Your task to perform on an android device: check the backup settings in the google photos Image 0: 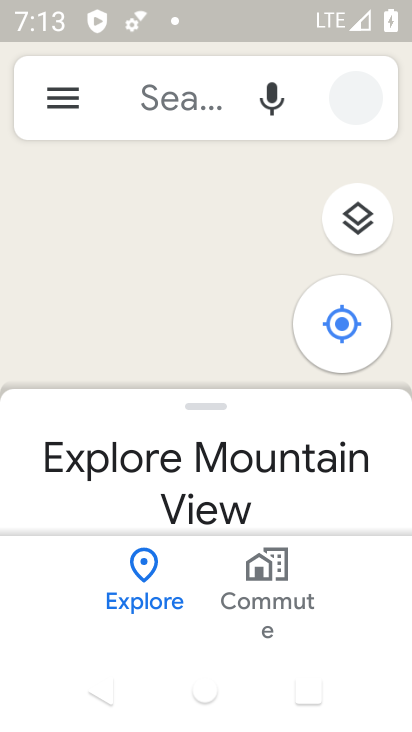
Step 0: click (204, 258)
Your task to perform on an android device: check the backup settings in the google photos Image 1: 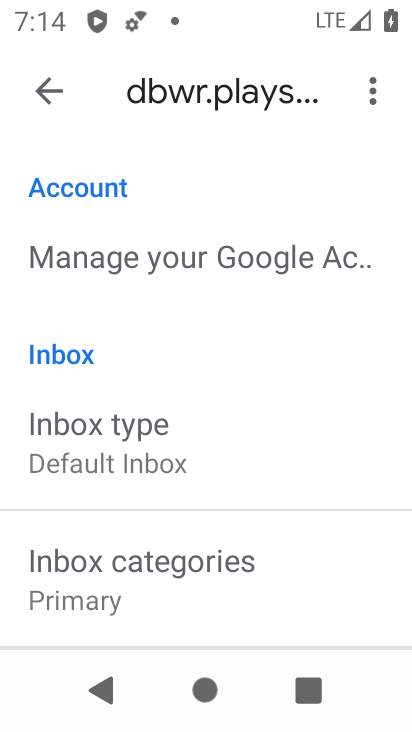
Step 1: press home button
Your task to perform on an android device: check the backup settings in the google photos Image 2: 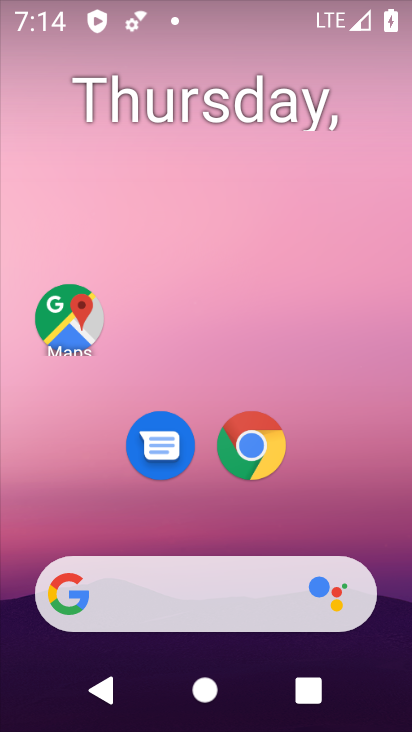
Step 2: drag from (292, 270) to (294, 176)
Your task to perform on an android device: check the backup settings in the google photos Image 3: 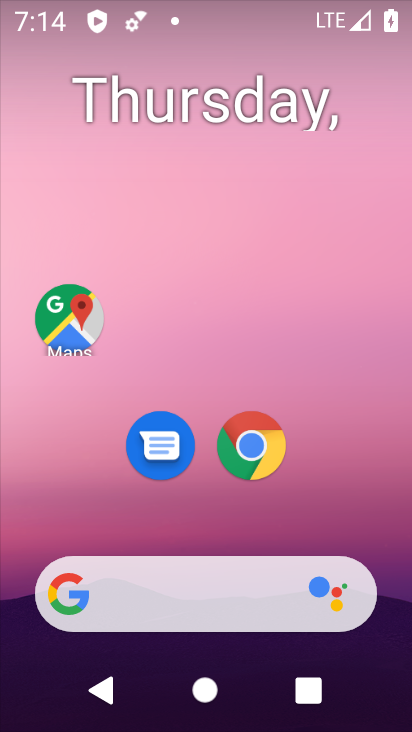
Step 3: drag from (275, 508) to (324, 119)
Your task to perform on an android device: check the backup settings in the google photos Image 4: 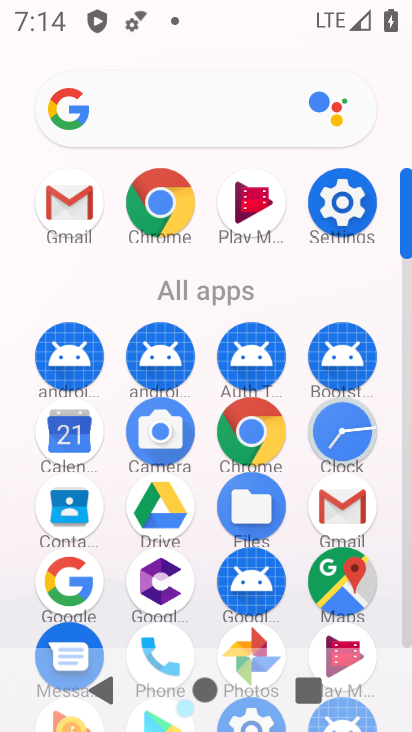
Step 4: click (246, 649)
Your task to perform on an android device: check the backup settings in the google photos Image 5: 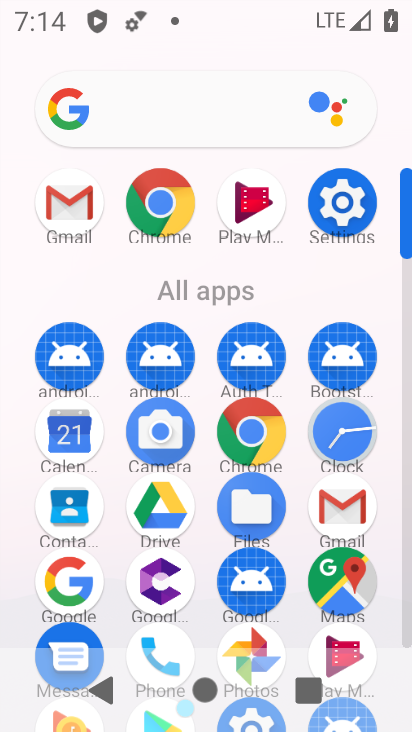
Step 5: drag from (259, 629) to (295, 389)
Your task to perform on an android device: check the backup settings in the google photos Image 6: 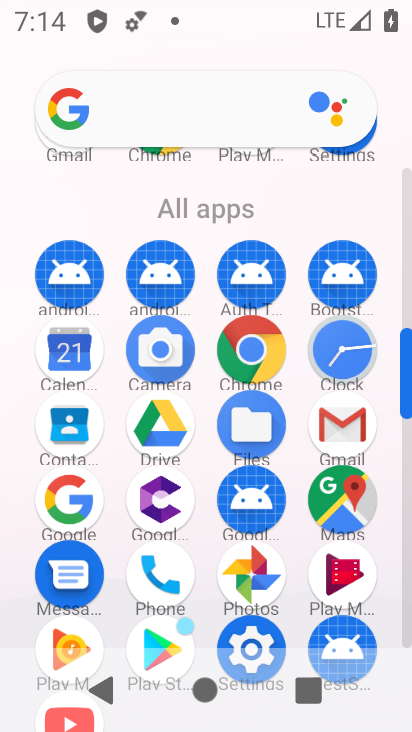
Step 6: click (265, 579)
Your task to perform on an android device: check the backup settings in the google photos Image 7: 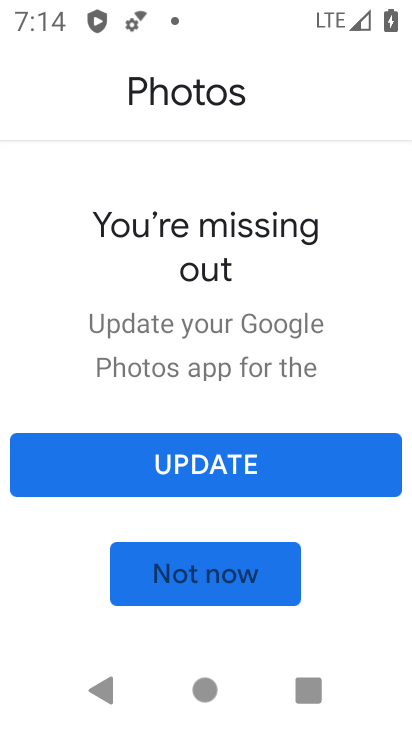
Step 7: click (241, 580)
Your task to perform on an android device: check the backup settings in the google photos Image 8: 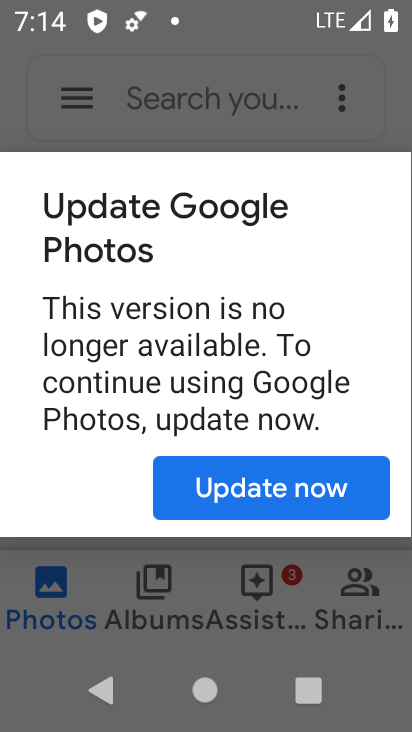
Step 8: click (60, 99)
Your task to perform on an android device: check the backup settings in the google photos Image 9: 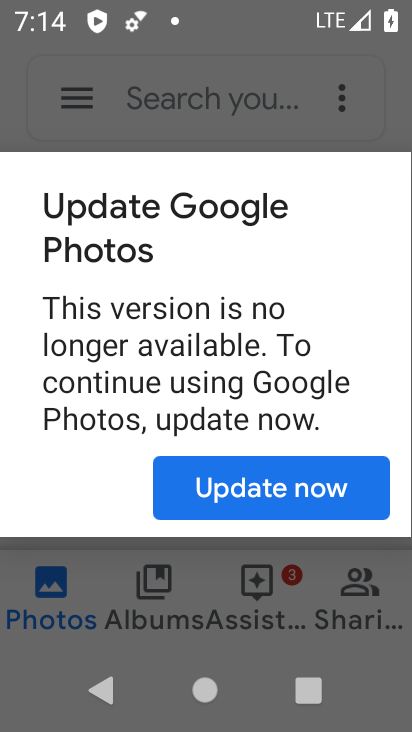
Step 9: click (232, 487)
Your task to perform on an android device: check the backup settings in the google photos Image 10: 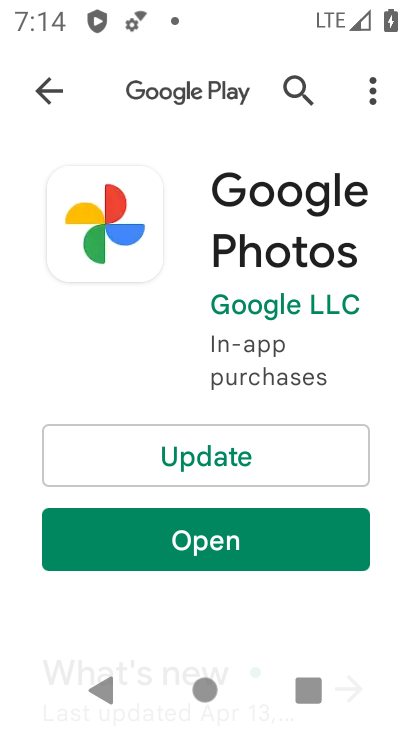
Step 10: click (144, 571)
Your task to perform on an android device: check the backup settings in the google photos Image 11: 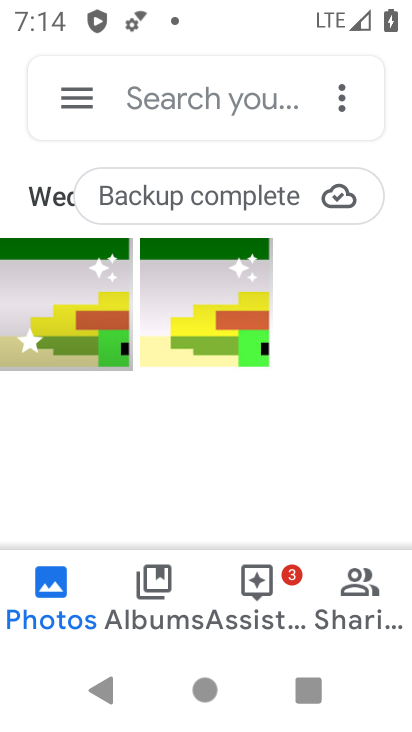
Step 11: click (54, 103)
Your task to perform on an android device: check the backup settings in the google photos Image 12: 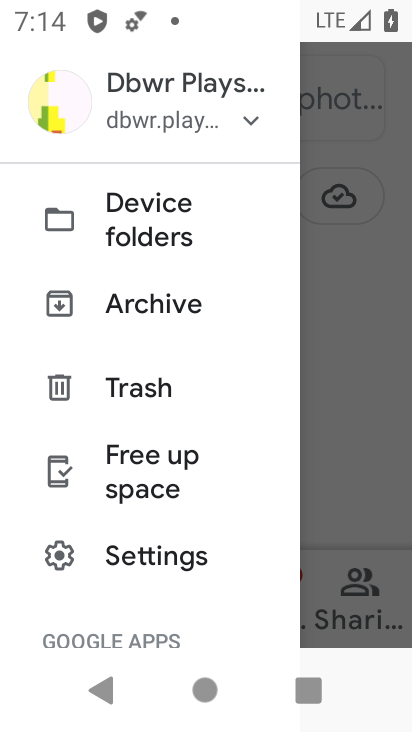
Step 12: click (125, 555)
Your task to perform on an android device: check the backup settings in the google photos Image 13: 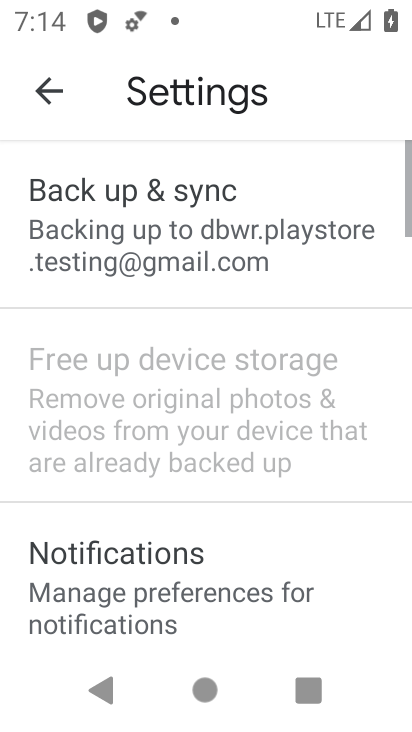
Step 13: click (145, 224)
Your task to perform on an android device: check the backup settings in the google photos Image 14: 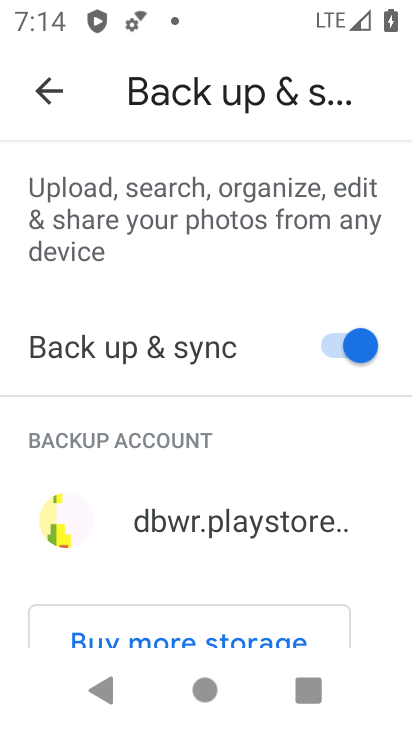
Step 14: task complete